Your task to perform on an android device: Go to display settings Image 0: 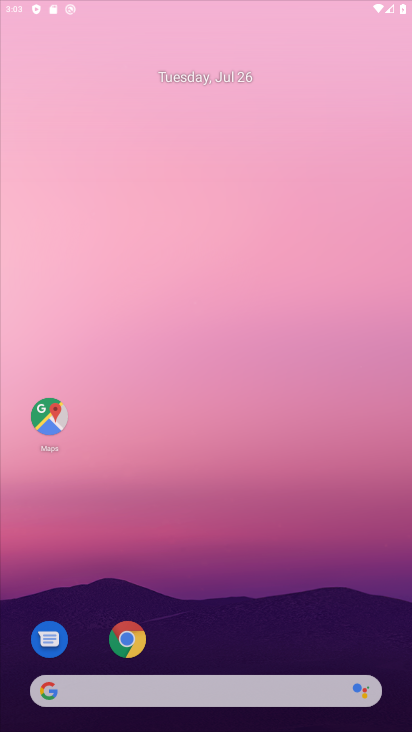
Step 0: click (181, 424)
Your task to perform on an android device: Go to display settings Image 1: 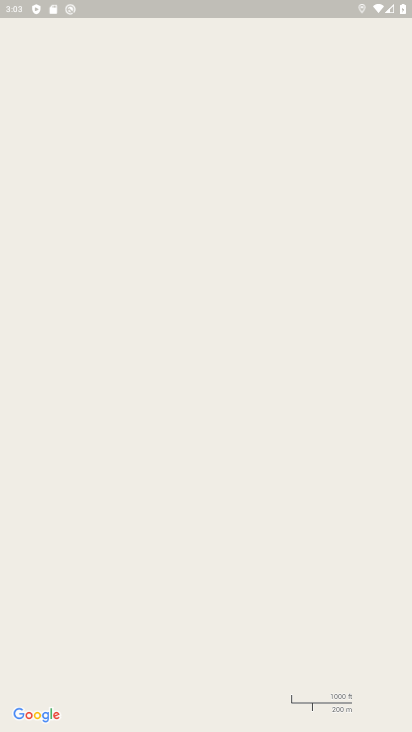
Step 1: press home button
Your task to perform on an android device: Go to display settings Image 2: 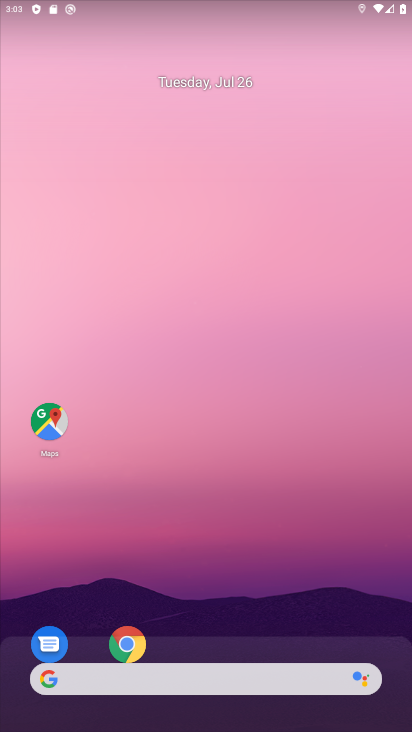
Step 2: drag from (237, 660) to (185, 215)
Your task to perform on an android device: Go to display settings Image 3: 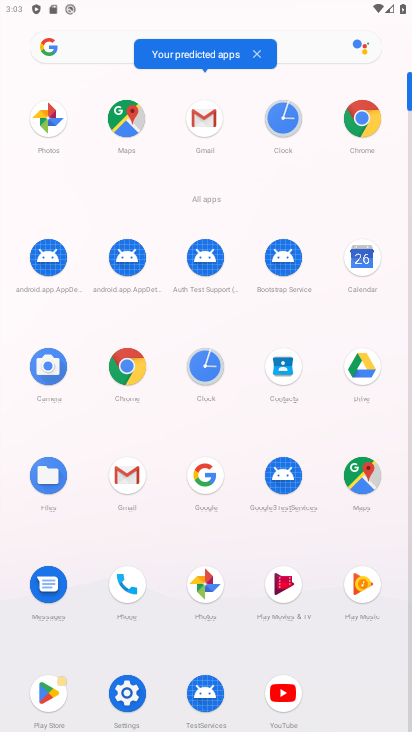
Step 3: click (122, 678)
Your task to perform on an android device: Go to display settings Image 4: 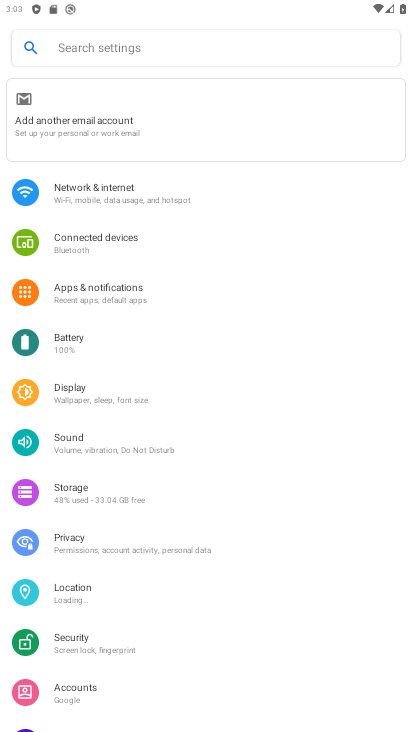
Step 4: click (85, 389)
Your task to perform on an android device: Go to display settings Image 5: 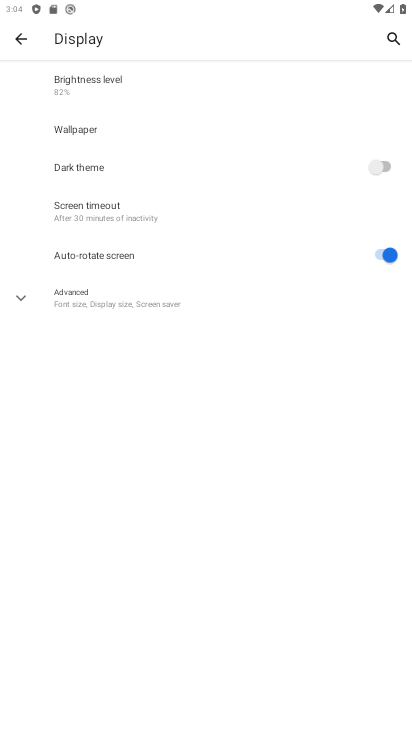
Step 5: task complete